Your task to perform on an android device: uninstall "Gmail" Image 0: 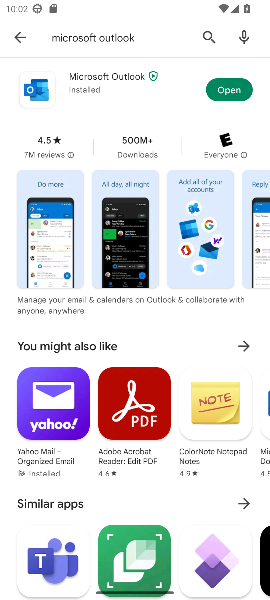
Step 0: press home button
Your task to perform on an android device: uninstall "Gmail" Image 1: 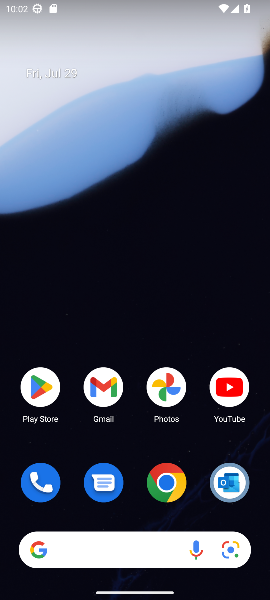
Step 1: click (35, 384)
Your task to perform on an android device: uninstall "Gmail" Image 2: 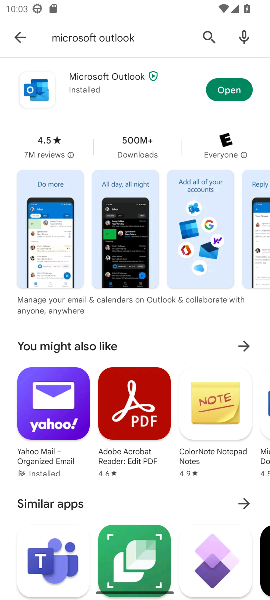
Step 2: click (210, 30)
Your task to perform on an android device: uninstall "Gmail" Image 3: 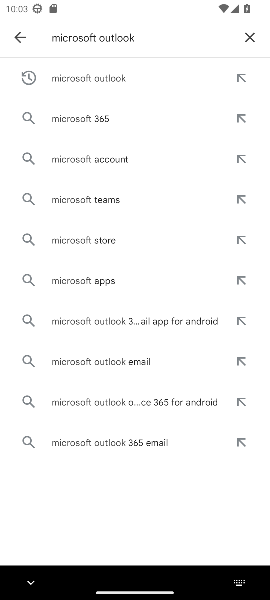
Step 3: click (246, 38)
Your task to perform on an android device: uninstall "Gmail" Image 4: 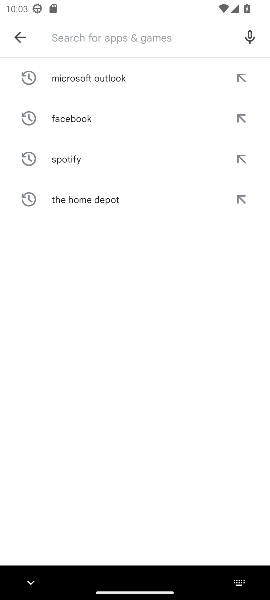
Step 4: type "Gmail"
Your task to perform on an android device: uninstall "Gmail" Image 5: 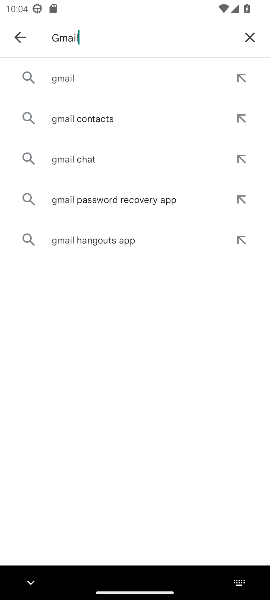
Step 5: click (61, 77)
Your task to perform on an android device: uninstall "Gmail" Image 6: 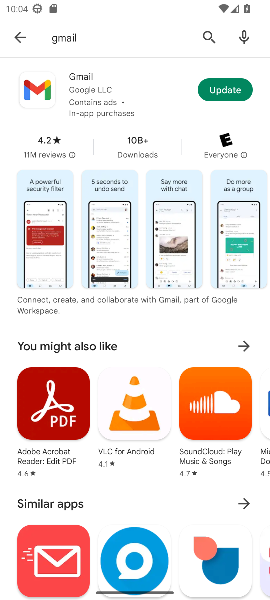
Step 6: click (70, 92)
Your task to perform on an android device: uninstall "Gmail" Image 7: 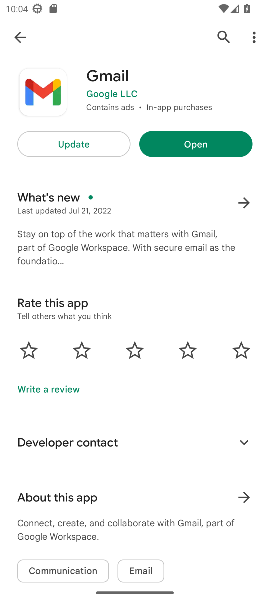
Step 7: task complete